Your task to perform on an android device: toggle sleep mode Image 0: 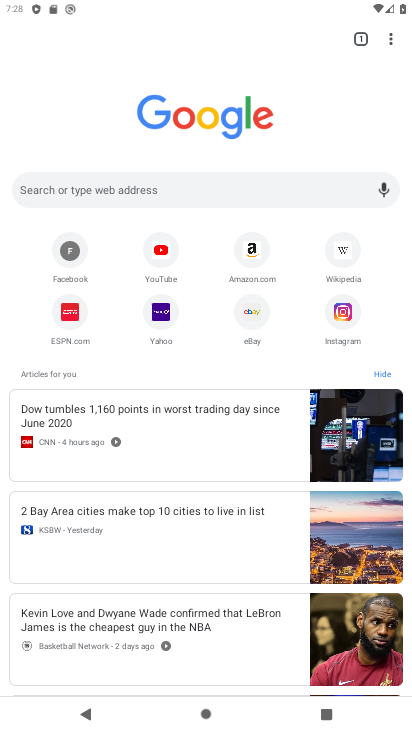
Step 0: press home button
Your task to perform on an android device: toggle sleep mode Image 1: 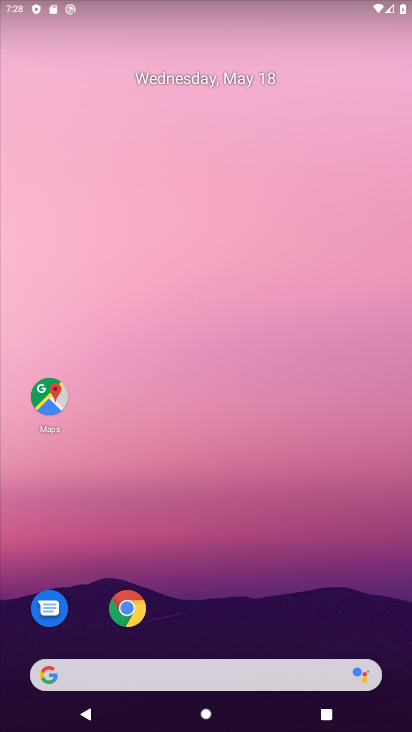
Step 1: drag from (375, 382) to (335, 1)
Your task to perform on an android device: toggle sleep mode Image 2: 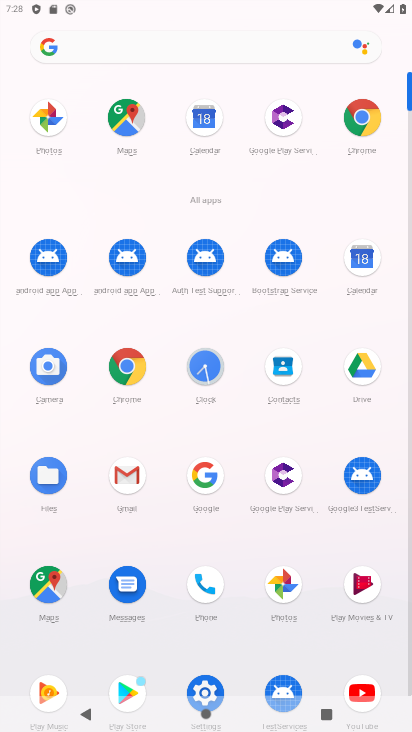
Step 2: drag from (210, 652) to (198, 516)
Your task to perform on an android device: toggle sleep mode Image 3: 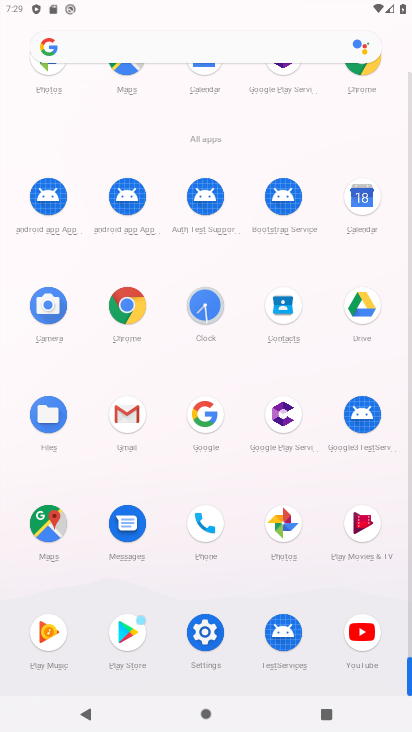
Step 3: click (207, 639)
Your task to perform on an android device: toggle sleep mode Image 4: 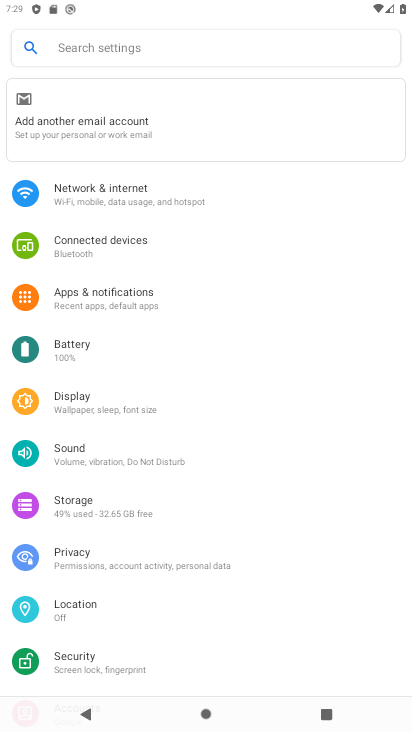
Step 4: click (142, 398)
Your task to perform on an android device: toggle sleep mode Image 5: 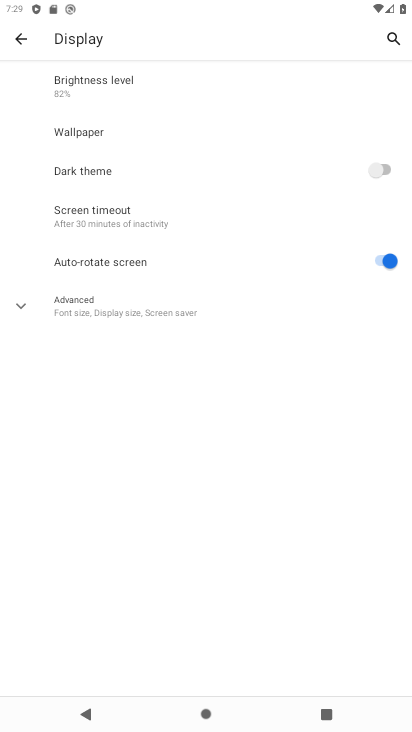
Step 5: click (141, 301)
Your task to perform on an android device: toggle sleep mode Image 6: 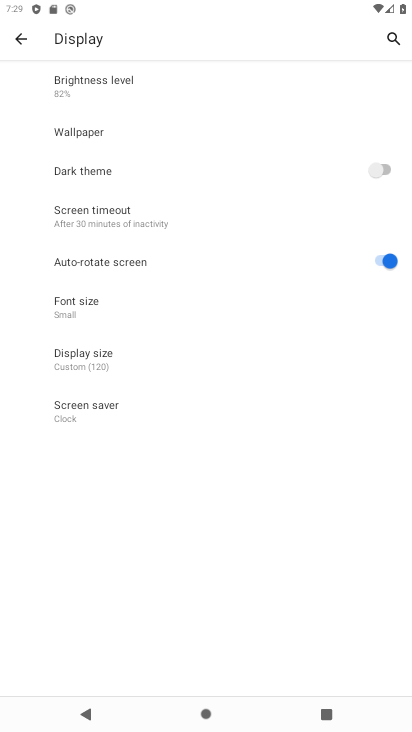
Step 6: task complete